Your task to perform on an android device: Search for Mexican restaurants on Maps Image 0: 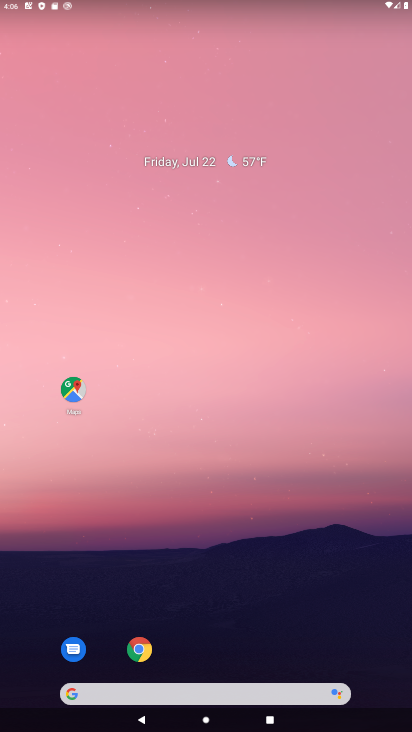
Step 0: click (72, 378)
Your task to perform on an android device: Search for Mexican restaurants on Maps Image 1: 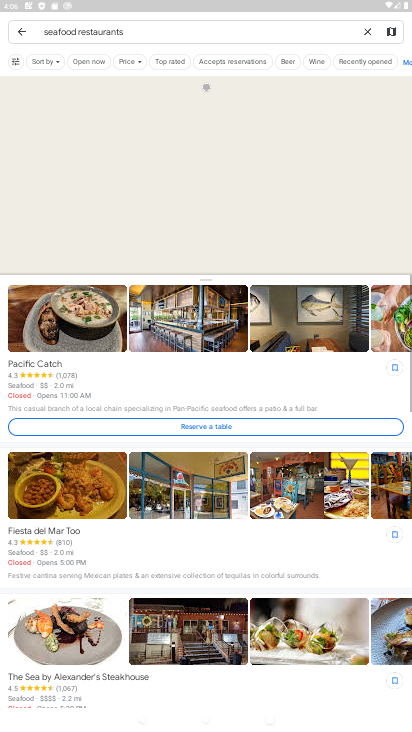
Step 1: click (23, 26)
Your task to perform on an android device: Search for Mexican restaurants on Maps Image 2: 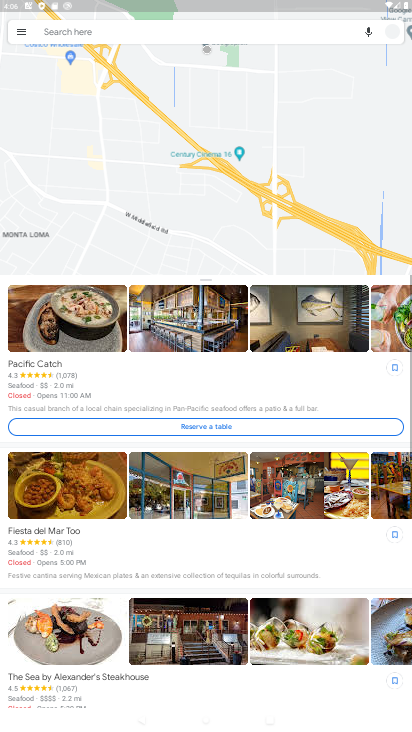
Step 2: click (64, 32)
Your task to perform on an android device: Search for Mexican restaurants on Maps Image 3: 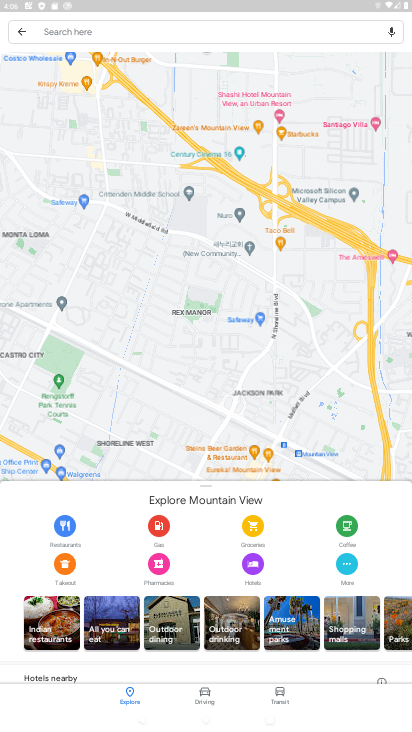
Step 3: click (60, 27)
Your task to perform on an android device: Search for Mexican restaurants on Maps Image 4: 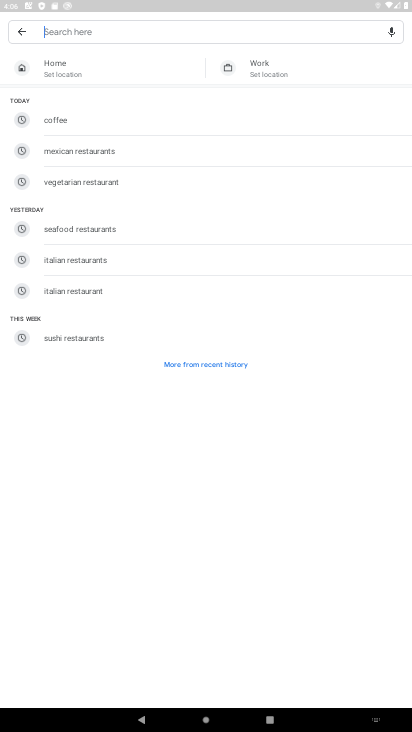
Step 4: click (88, 155)
Your task to perform on an android device: Search for Mexican restaurants on Maps Image 5: 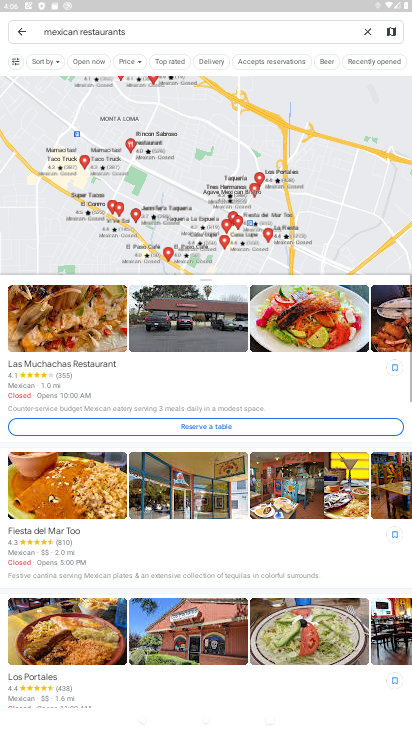
Step 5: task complete